Your task to perform on an android device: check storage Image 0: 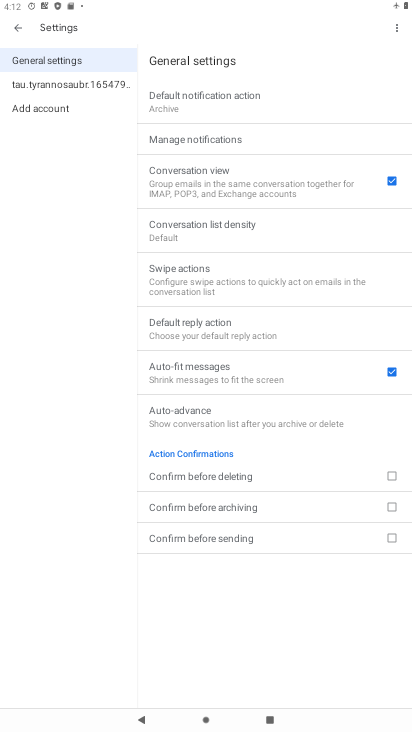
Step 0: press home button
Your task to perform on an android device: check storage Image 1: 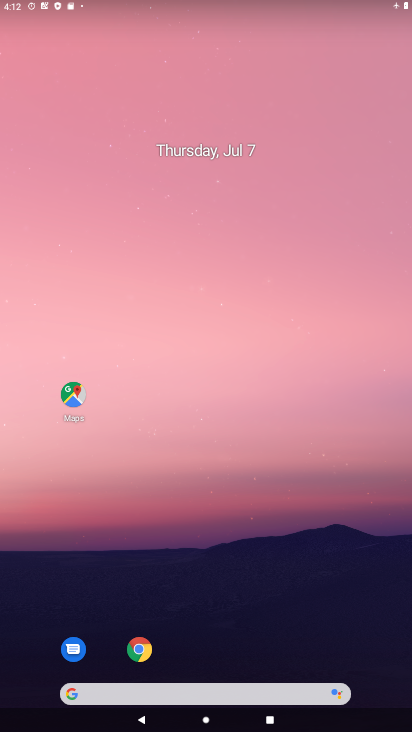
Step 1: drag from (379, 667) to (256, 130)
Your task to perform on an android device: check storage Image 2: 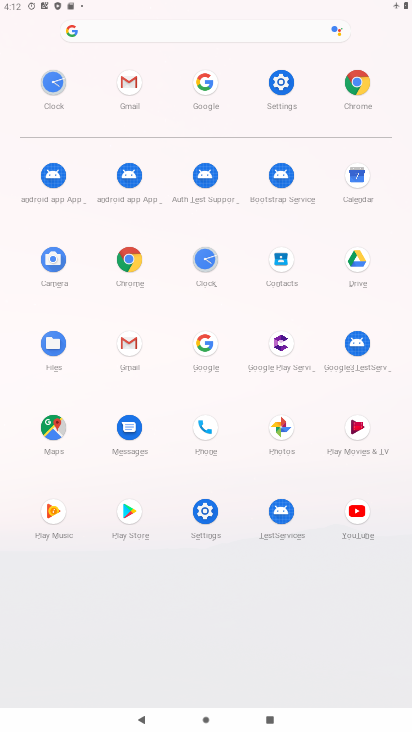
Step 2: click (198, 520)
Your task to perform on an android device: check storage Image 3: 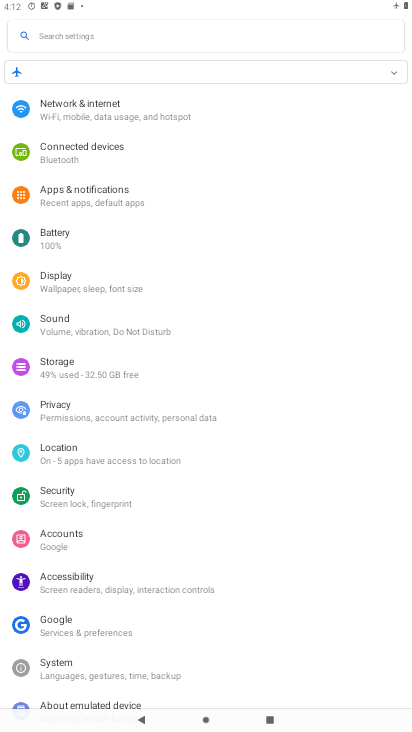
Step 3: click (58, 370)
Your task to perform on an android device: check storage Image 4: 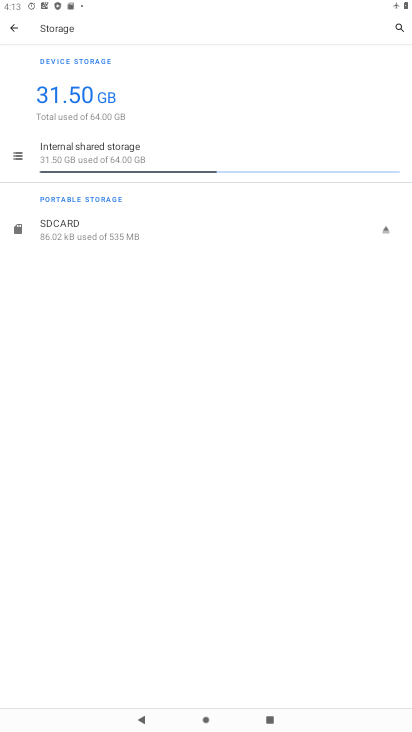
Step 4: click (104, 155)
Your task to perform on an android device: check storage Image 5: 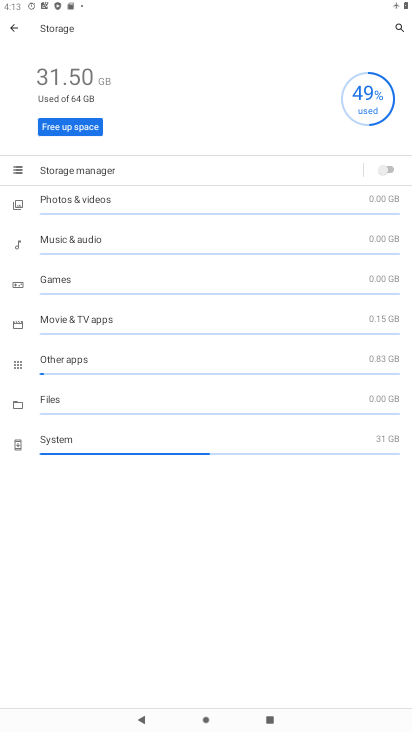
Step 5: task complete